Your task to perform on an android device: turn notification dots on Image 0: 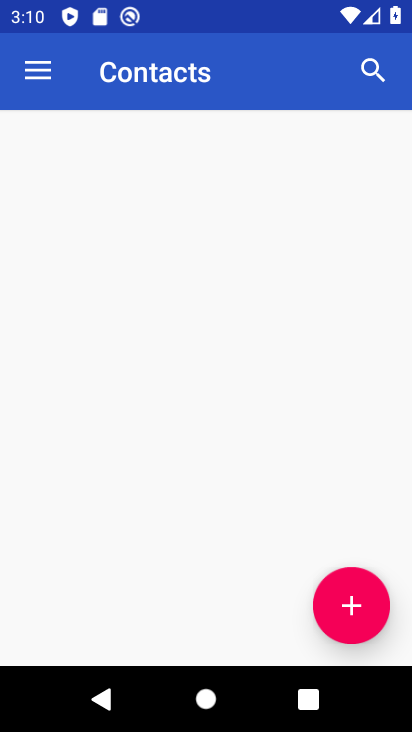
Step 0: drag from (209, 581) to (200, 292)
Your task to perform on an android device: turn notification dots on Image 1: 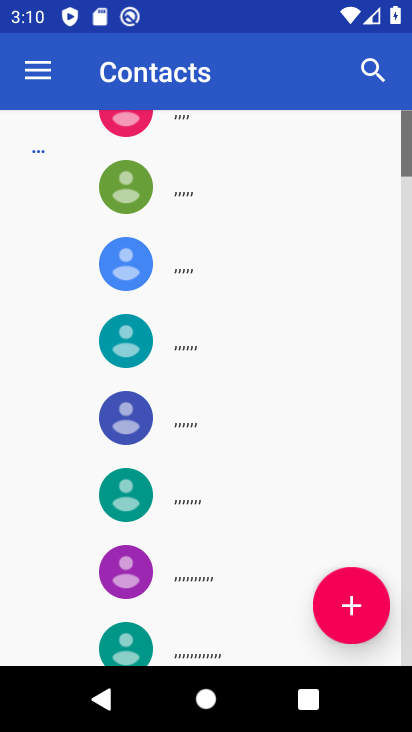
Step 1: press home button
Your task to perform on an android device: turn notification dots on Image 2: 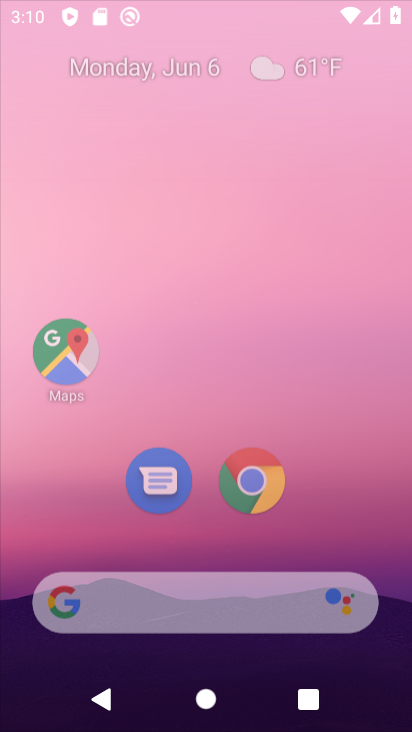
Step 2: press home button
Your task to perform on an android device: turn notification dots on Image 3: 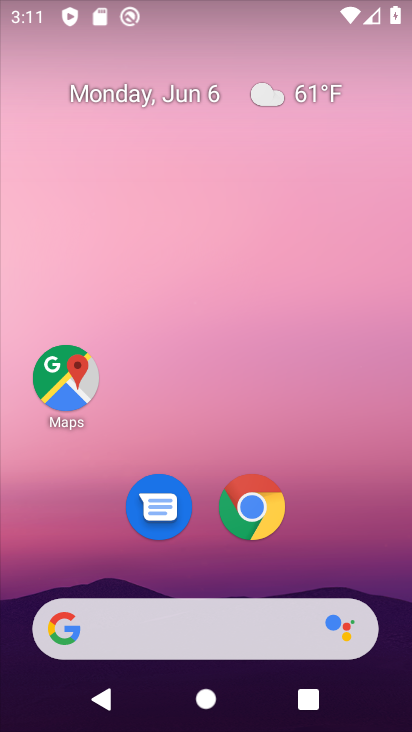
Step 3: drag from (209, 577) to (209, 176)
Your task to perform on an android device: turn notification dots on Image 4: 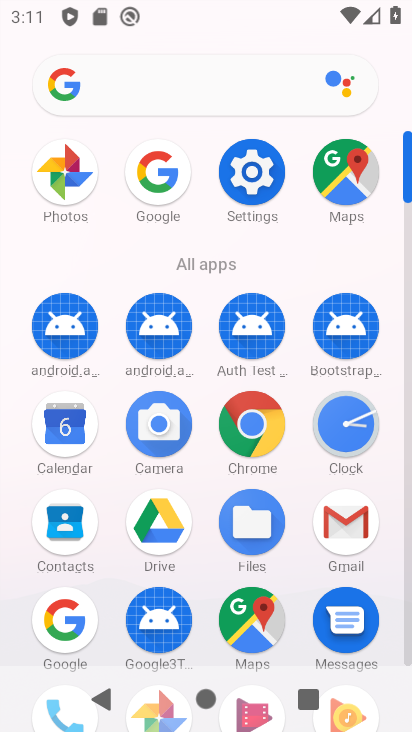
Step 4: click (235, 162)
Your task to perform on an android device: turn notification dots on Image 5: 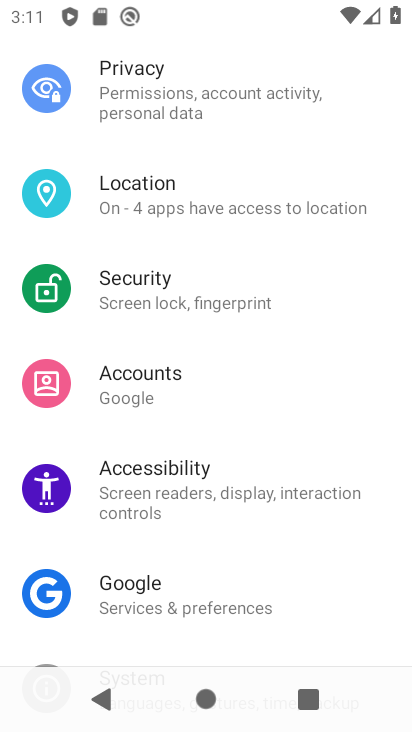
Step 5: drag from (252, 502) to (253, 549)
Your task to perform on an android device: turn notification dots on Image 6: 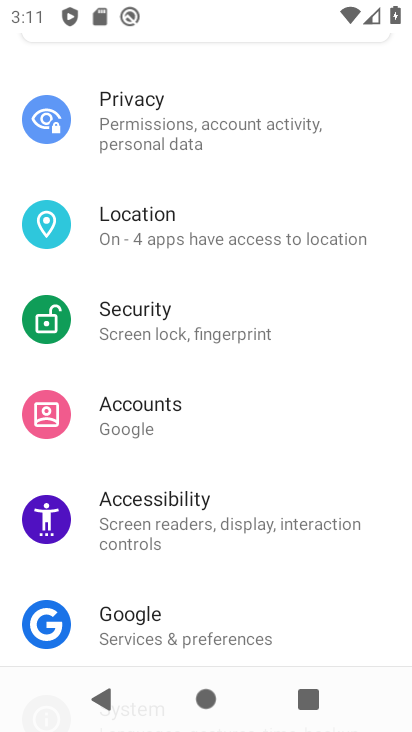
Step 6: drag from (248, 176) to (255, 493)
Your task to perform on an android device: turn notification dots on Image 7: 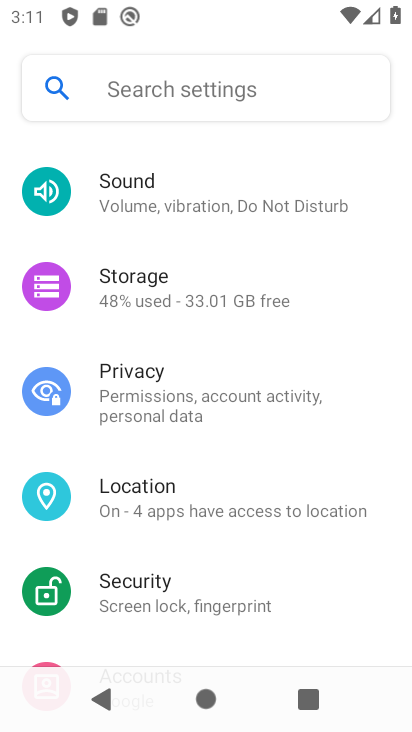
Step 7: drag from (252, 154) to (289, 408)
Your task to perform on an android device: turn notification dots on Image 8: 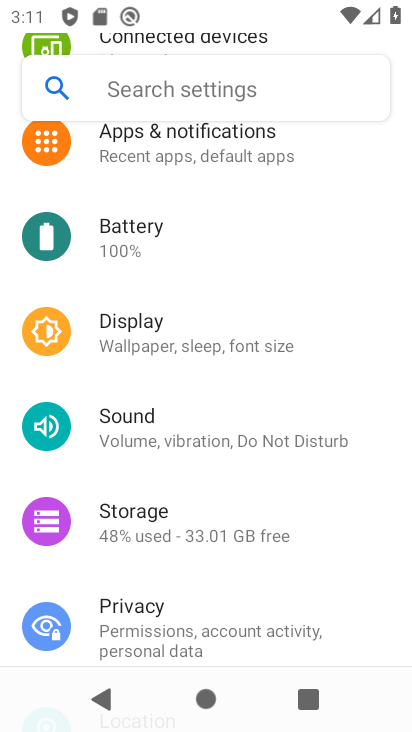
Step 8: click (254, 168)
Your task to perform on an android device: turn notification dots on Image 9: 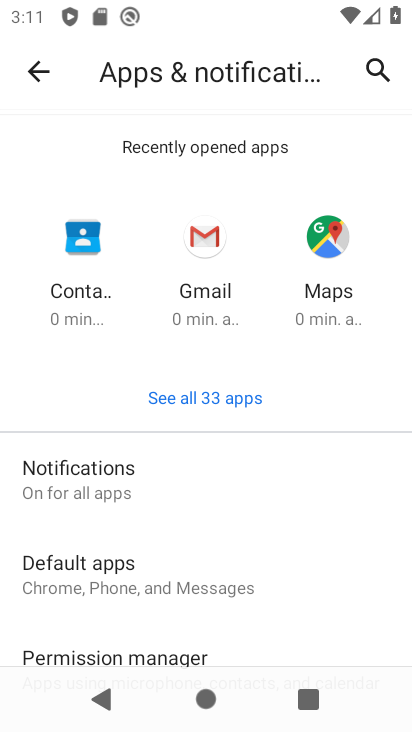
Step 9: click (210, 467)
Your task to perform on an android device: turn notification dots on Image 10: 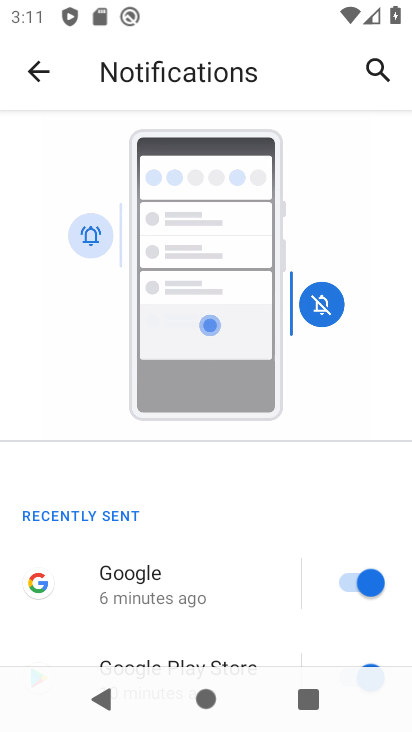
Step 10: drag from (234, 547) to (239, 237)
Your task to perform on an android device: turn notification dots on Image 11: 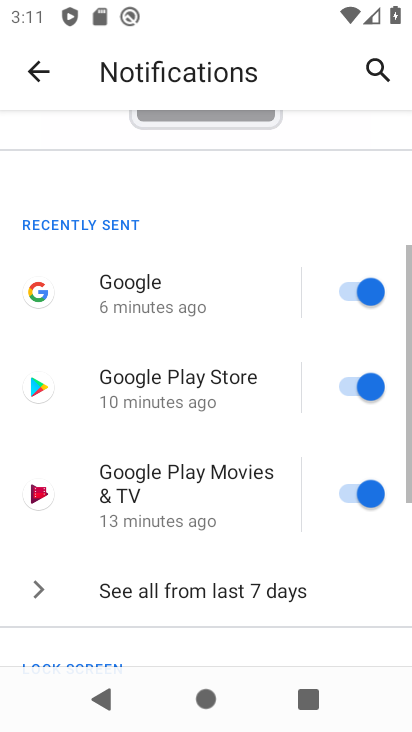
Step 11: drag from (235, 539) to (260, 280)
Your task to perform on an android device: turn notification dots on Image 12: 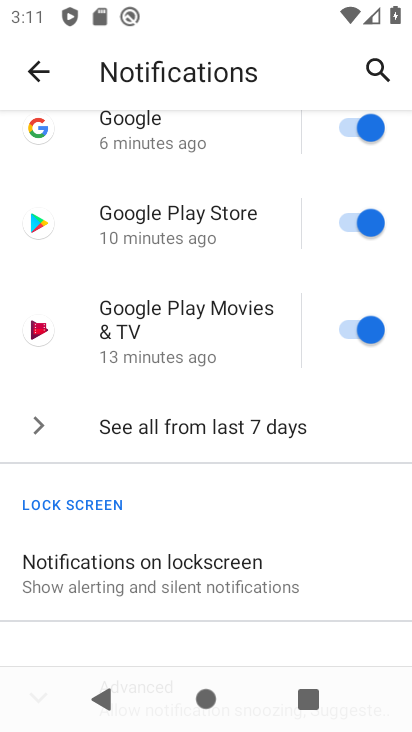
Step 12: drag from (253, 549) to (269, 267)
Your task to perform on an android device: turn notification dots on Image 13: 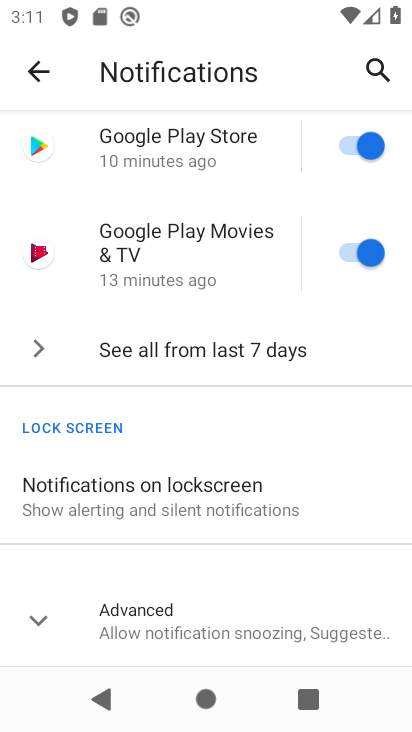
Step 13: click (245, 632)
Your task to perform on an android device: turn notification dots on Image 14: 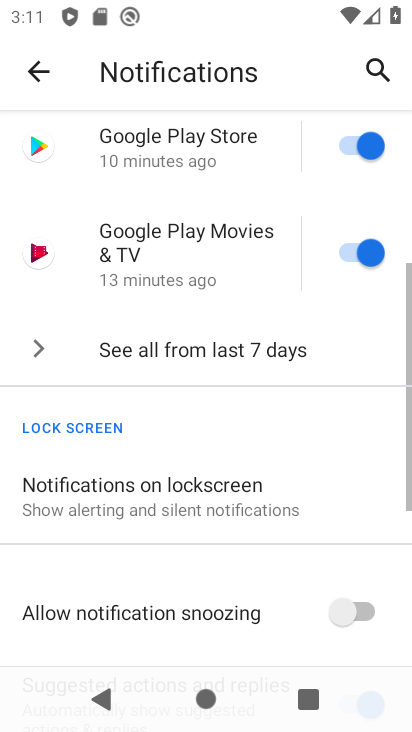
Step 14: task complete